Your task to perform on an android device: When is my next appointment? Image 0: 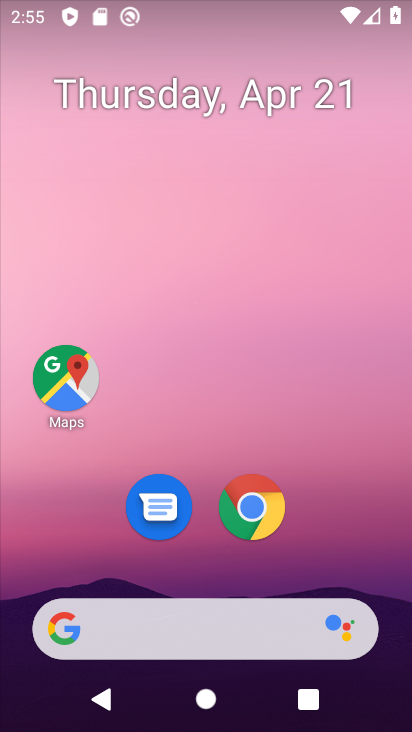
Step 0: drag from (337, 472) to (337, 64)
Your task to perform on an android device: When is my next appointment? Image 1: 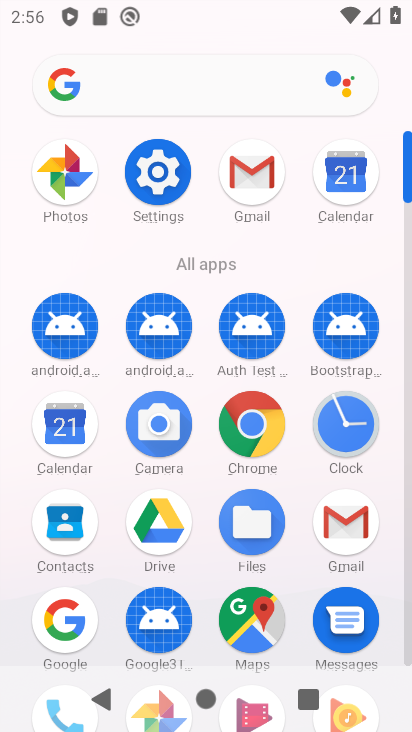
Step 1: click (65, 433)
Your task to perform on an android device: When is my next appointment? Image 2: 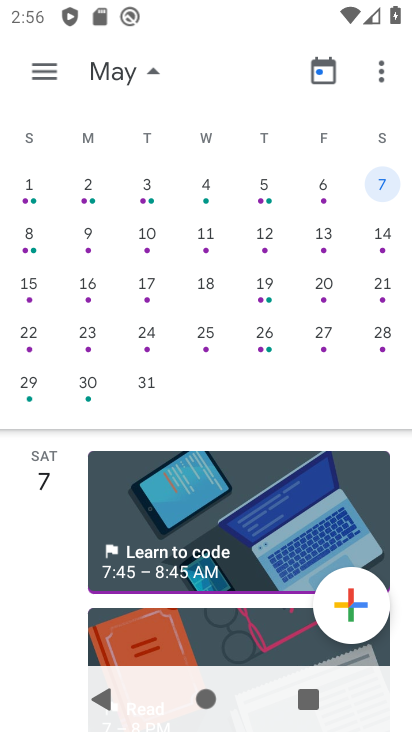
Step 2: drag from (79, 307) to (409, 304)
Your task to perform on an android device: When is my next appointment? Image 3: 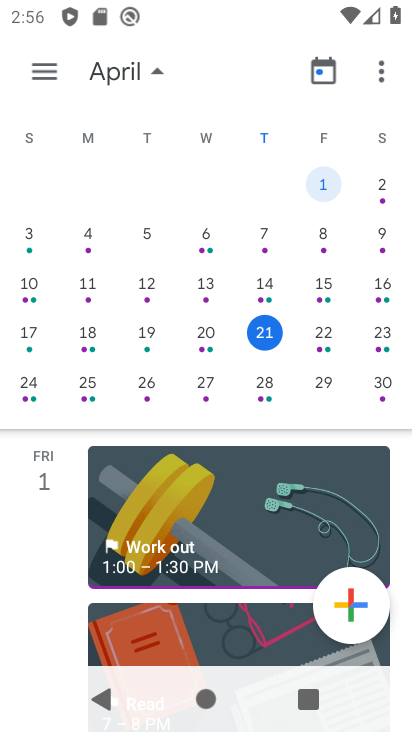
Step 3: click (327, 342)
Your task to perform on an android device: When is my next appointment? Image 4: 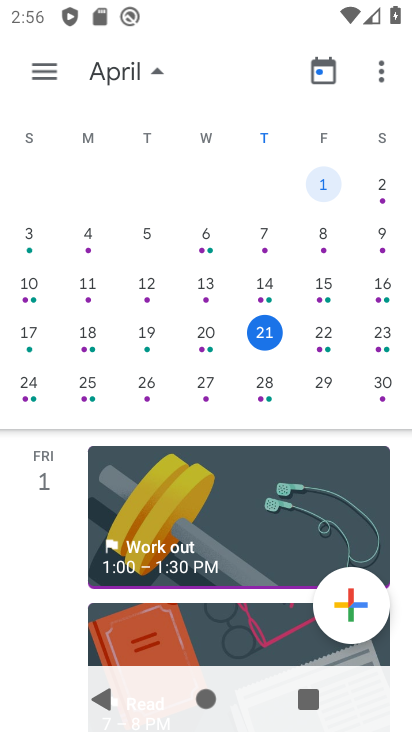
Step 4: click (326, 351)
Your task to perform on an android device: When is my next appointment? Image 5: 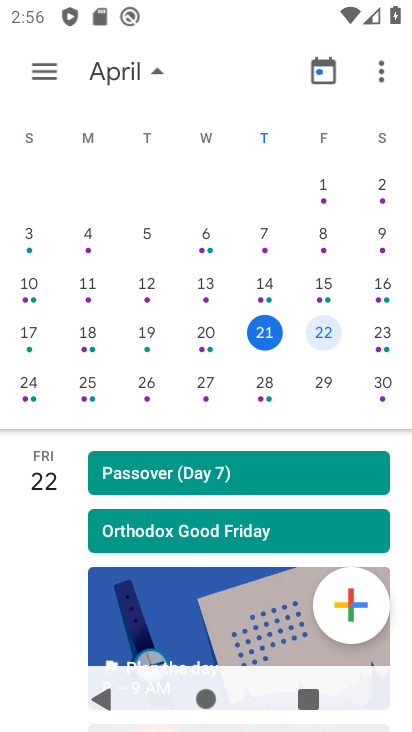
Step 5: click (376, 334)
Your task to perform on an android device: When is my next appointment? Image 6: 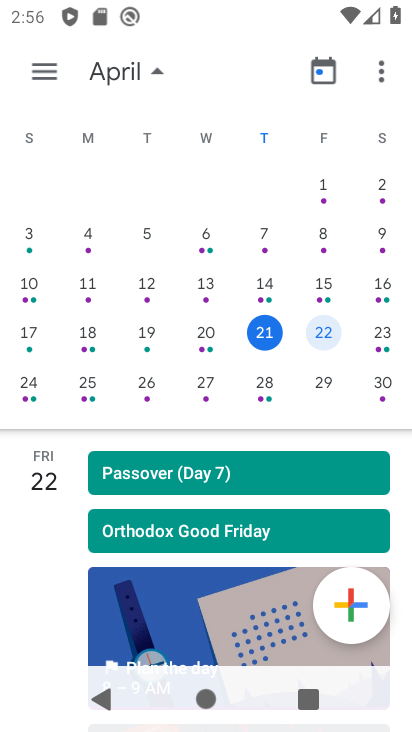
Step 6: click (384, 346)
Your task to perform on an android device: When is my next appointment? Image 7: 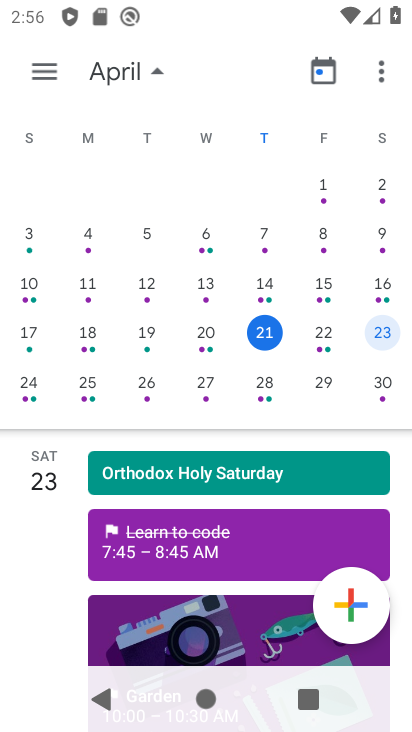
Step 7: click (23, 401)
Your task to perform on an android device: When is my next appointment? Image 8: 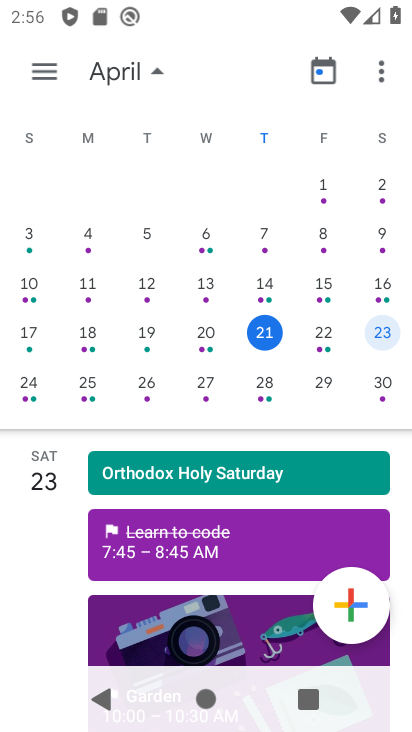
Step 8: click (85, 400)
Your task to perform on an android device: When is my next appointment? Image 9: 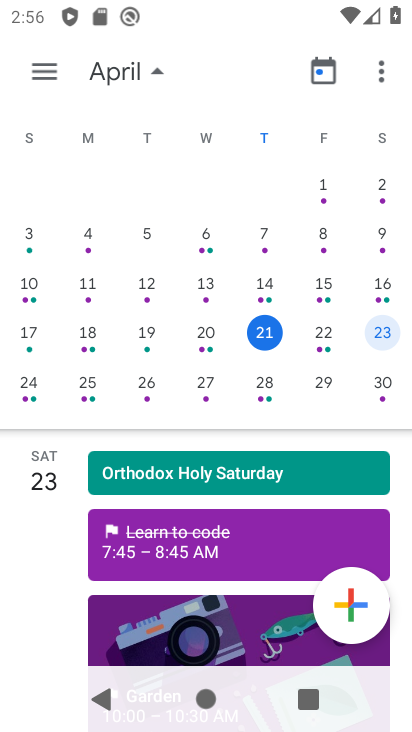
Step 9: click (143, 399)
Your task to perform on an android device: When is my next appointment? Image 10: 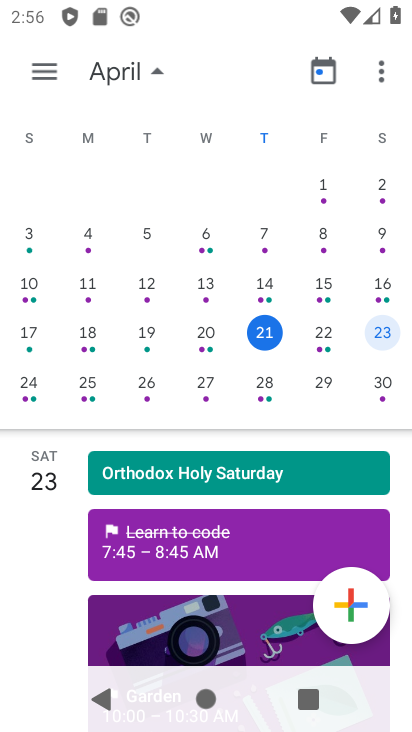
Step 10: click (211, 395)
Your task to perform on an android device: When is my next appointment? Image 11: 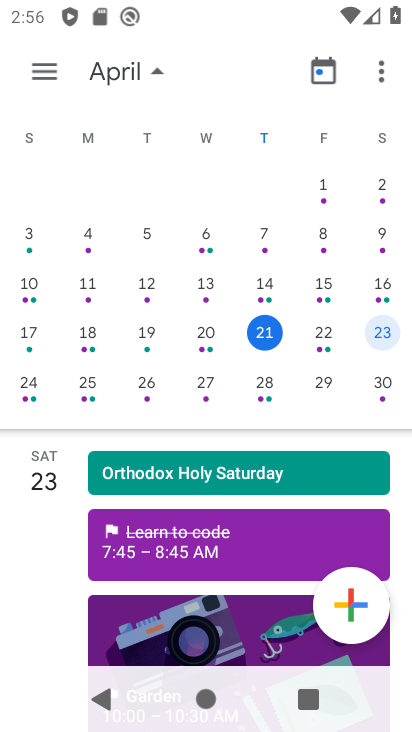
Step 11: click (269, 396)
Your task to perform on an android device: When is my next appointment? Image 12: 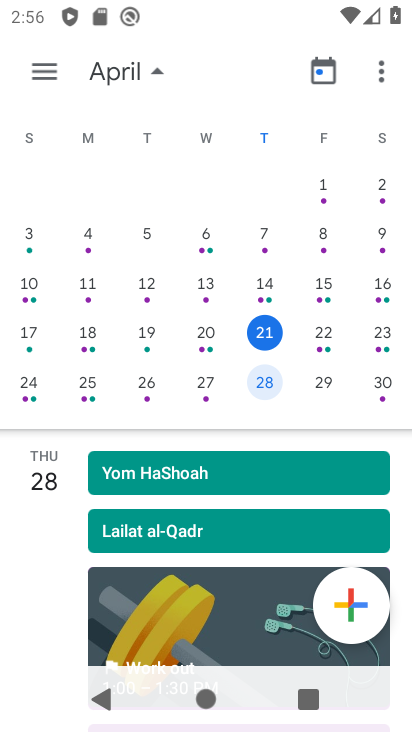
Step 12: click (379, 400)
Your task to perform on an android device: When is my next appointment? Image 13: 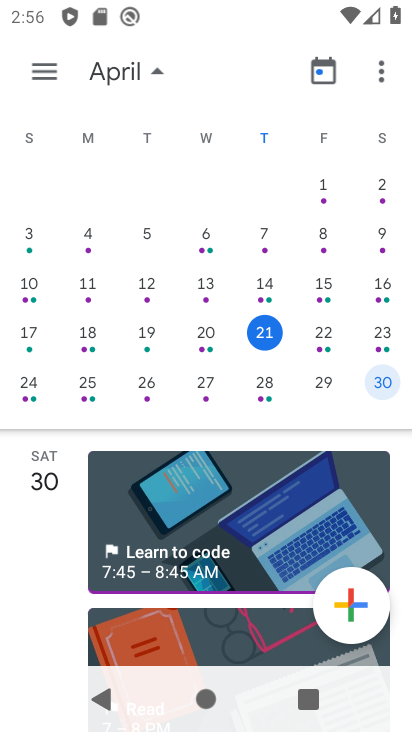
Step 13: task complete